Your task to perform on an android device: choose inbox layout in the gmail app Image 0: 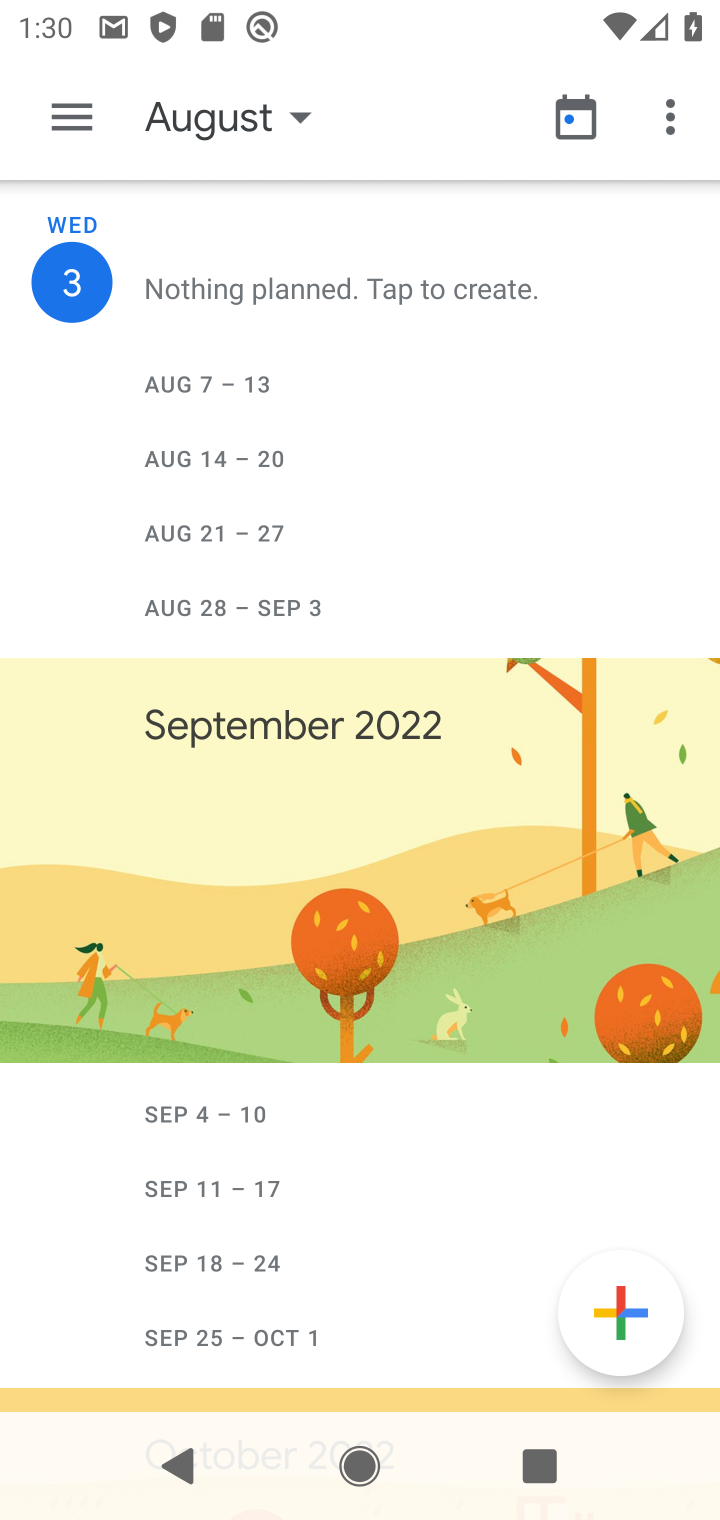
Step 0: press home button
Your task to perform on an android device: choose inbox layout in the gmail app Image 1: 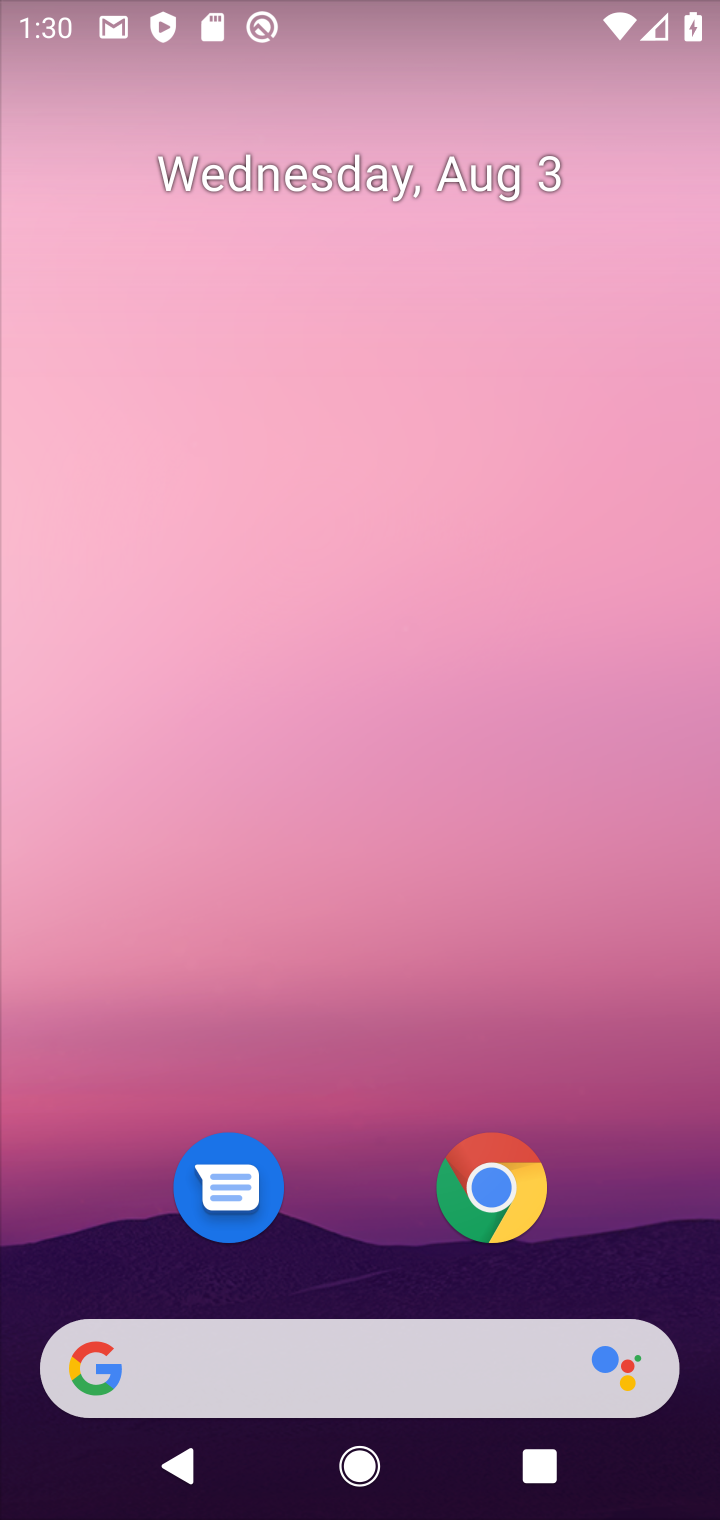
Step 1: drag from (347, 1174) to (431, 9)
Your task to perform on an android device: choose inbox layout in the gmail app Image 2: 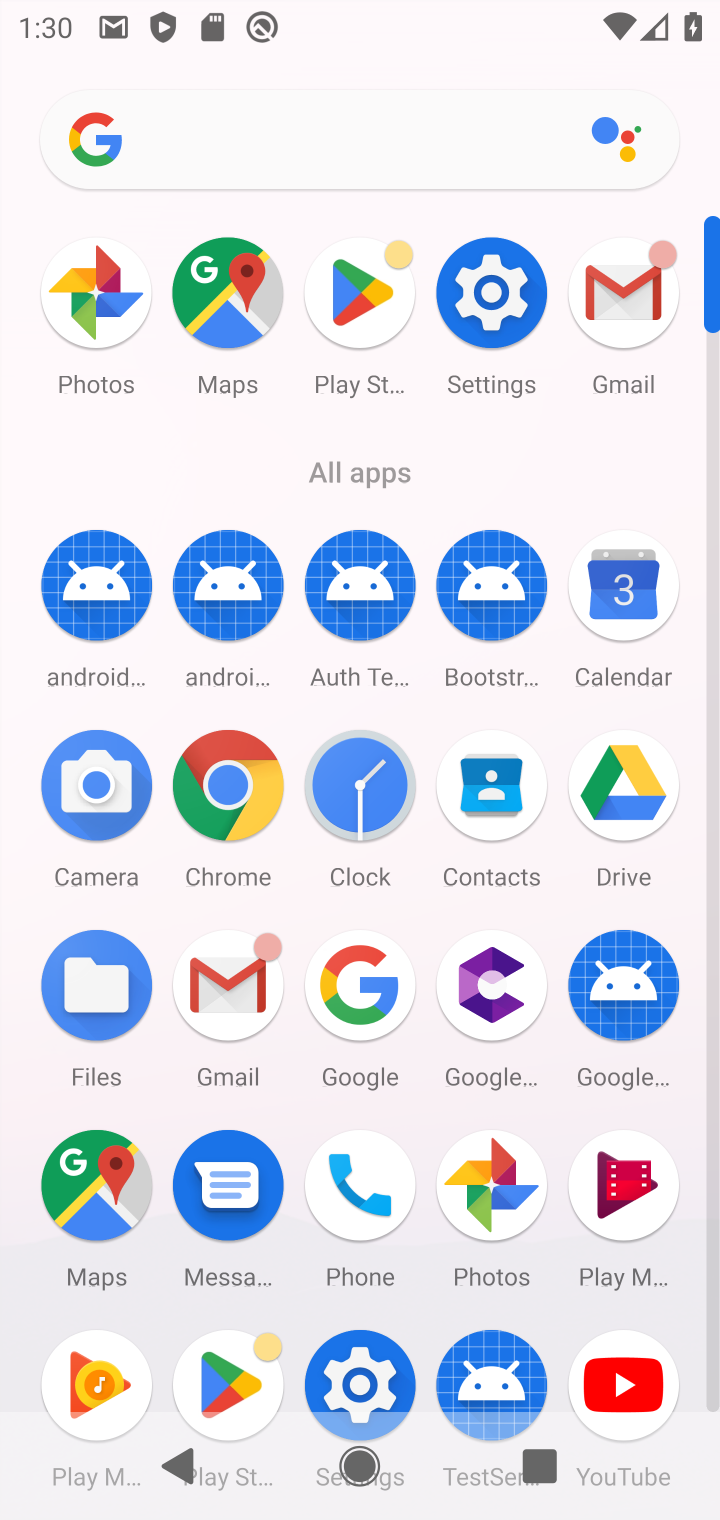
Step 2: click (619, 266)
Your task to perform on an android device: choose inbox layout in the gmail app Image 3: 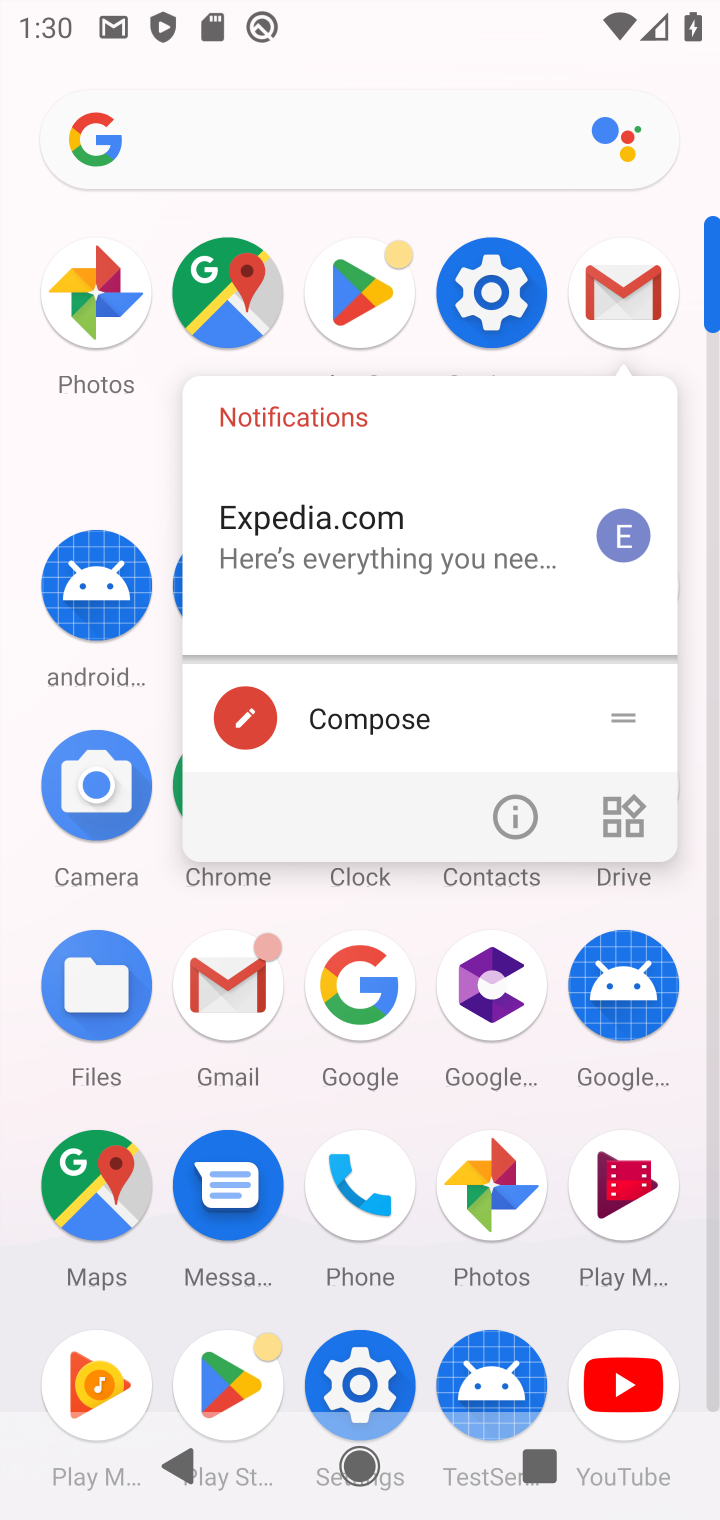
Step 3: click (619, 263)
Your task to perform on an android device: choose inbox layout in the gmail app Image 4: 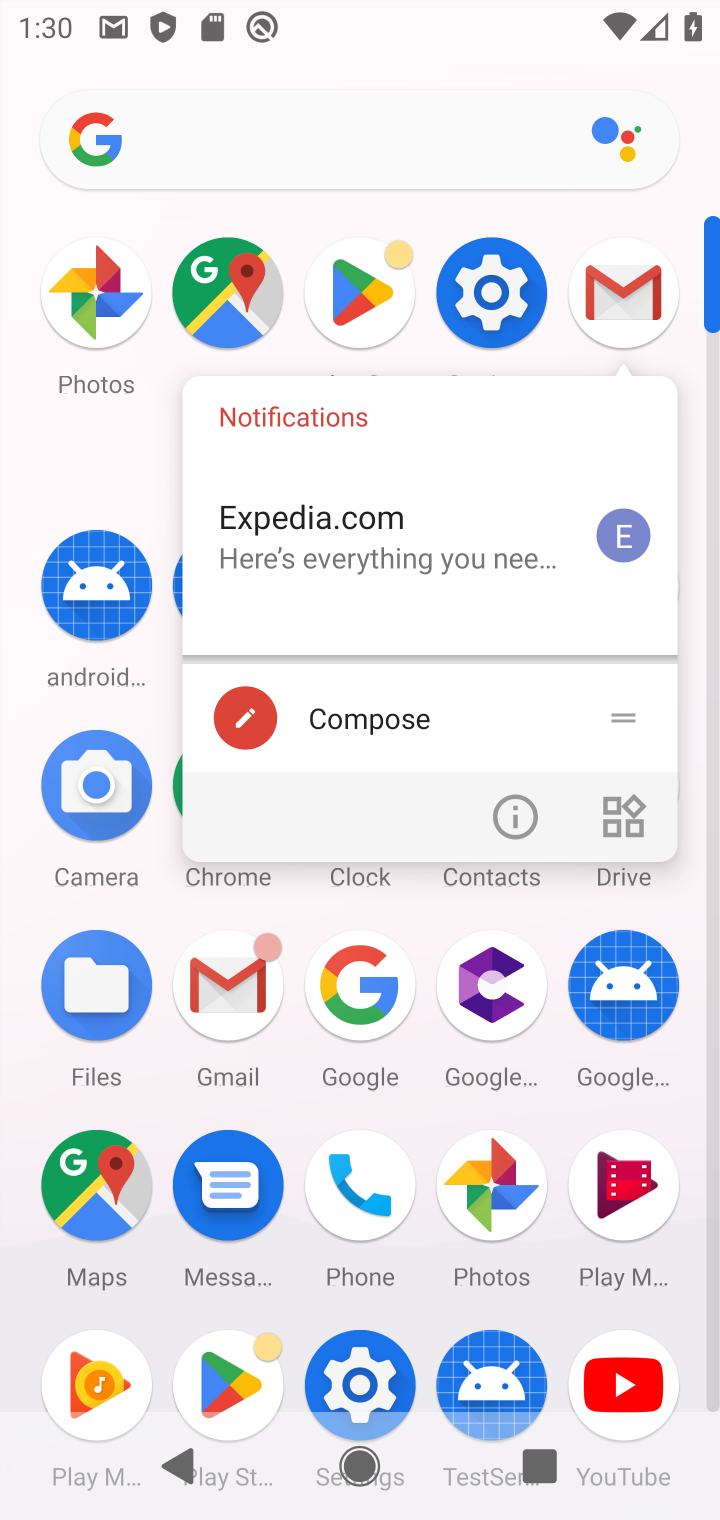
Step 4: click (619, 279)
Your task to perform on an android device: choose inbox layout in the gmail app Image 5: 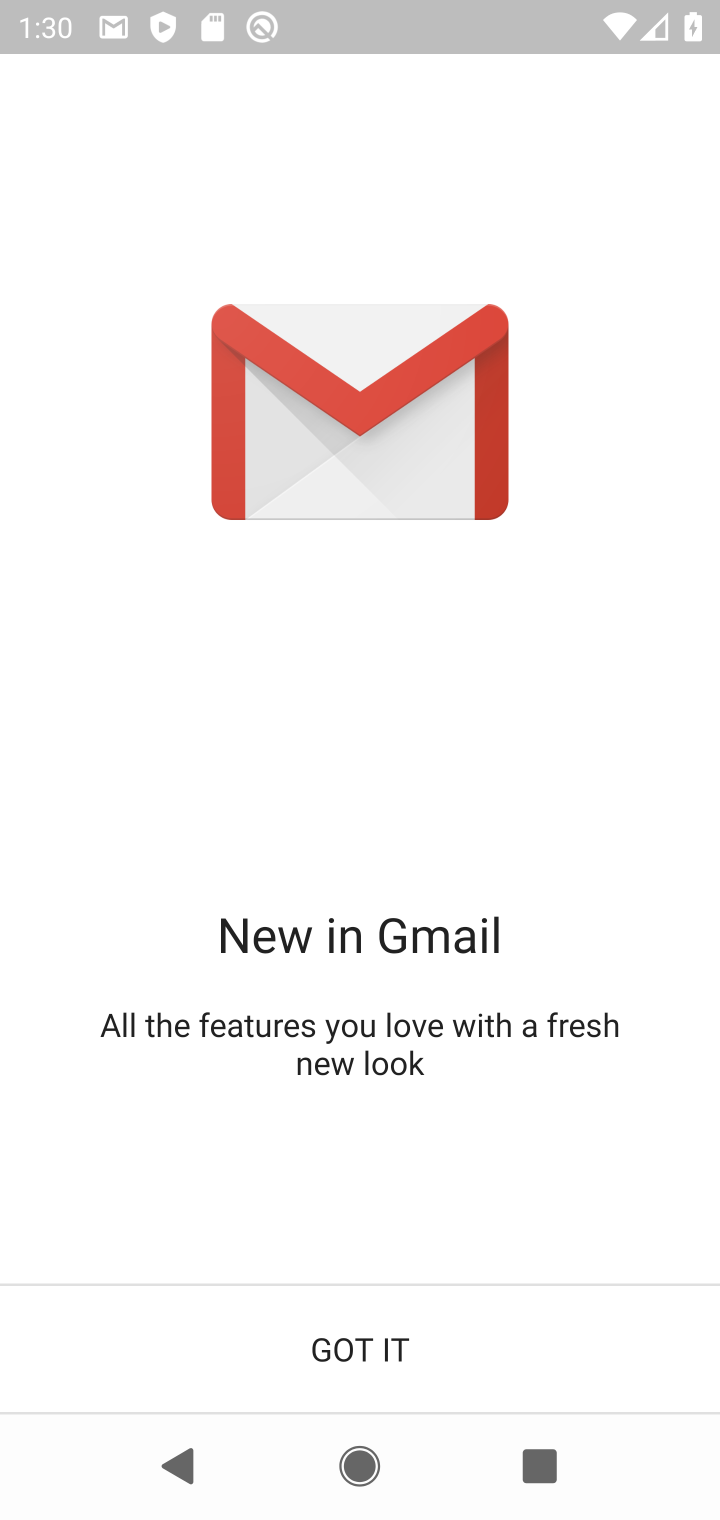
Step 5: click (559, 1353)
Your task to perform on an android device: choose inbox layout in the gmail app Image 6: 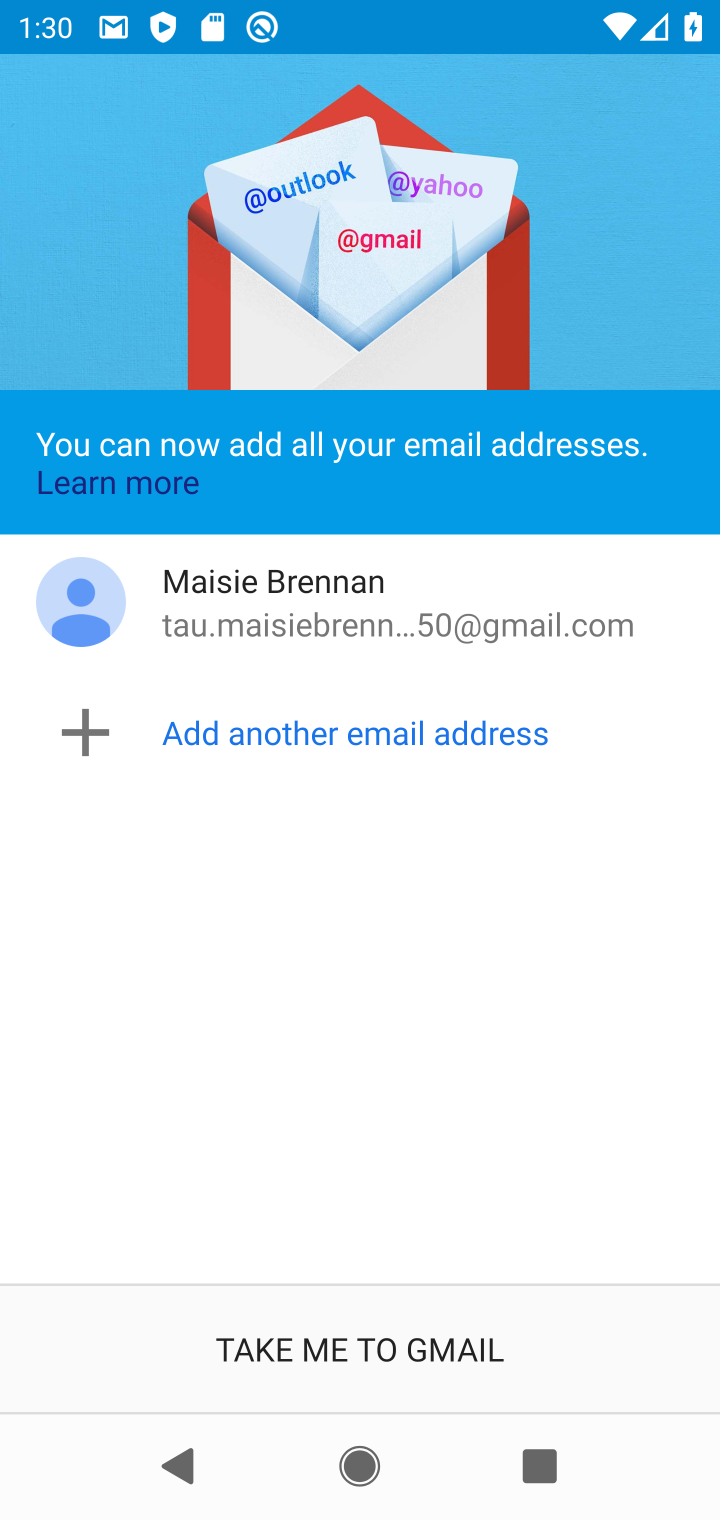
Step 6: click (556, 1346)
Your task to perform on an android device: choose inbox layout in the gmail app Image 7: 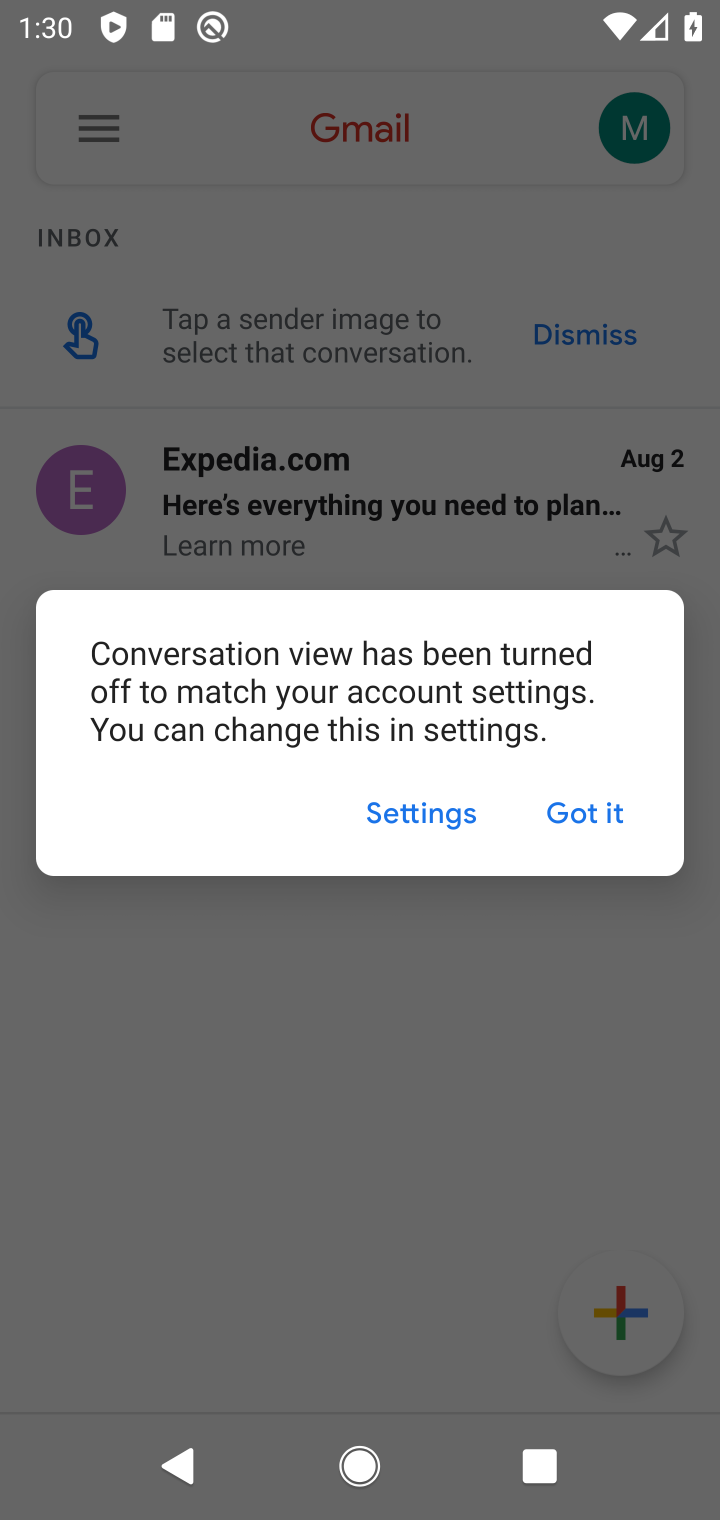
Step 7: click (581, 815)
Your task to perform on an android device: choose inbox layout in the gmail app Image 8: 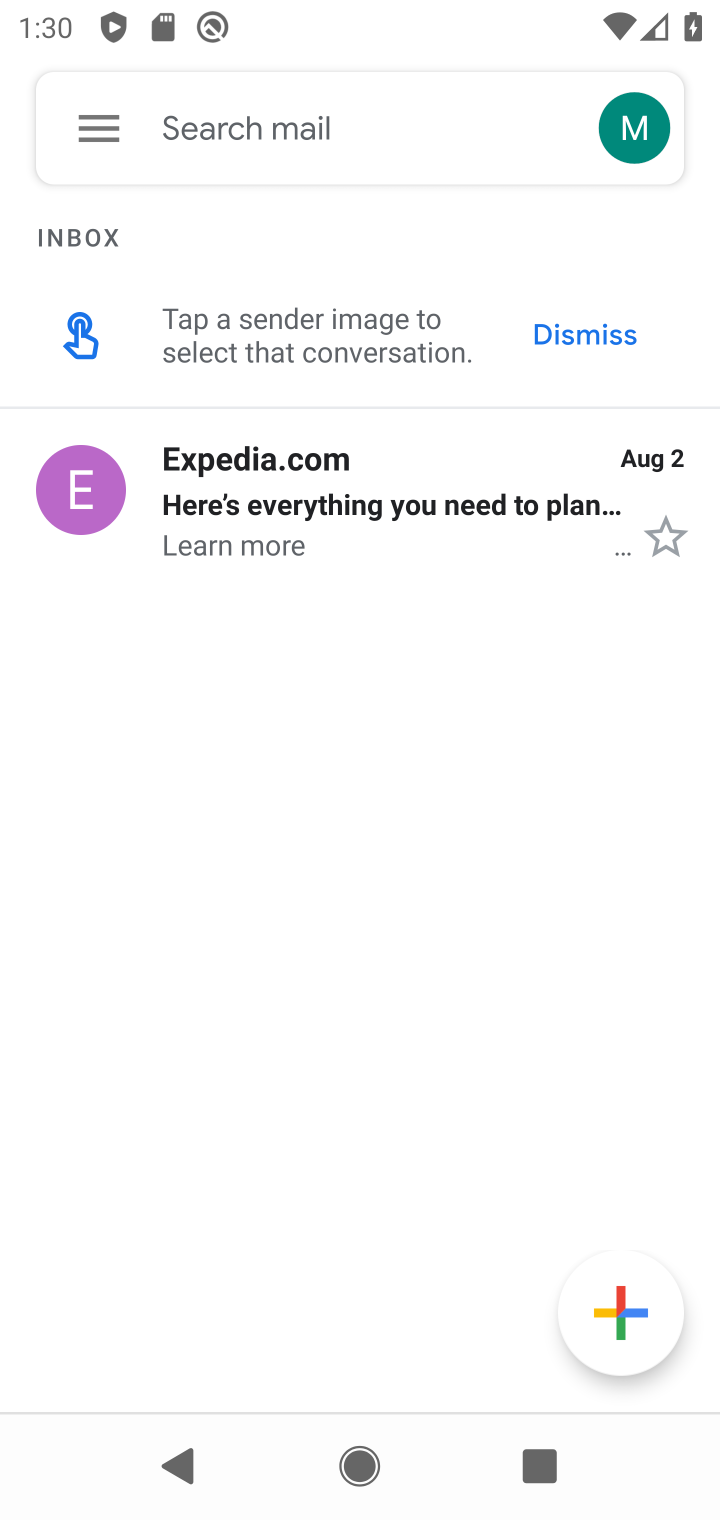
Step 8: click (100, 136)
Your task to perform on an android device: choose inbox layout in the gmail app Image 9: 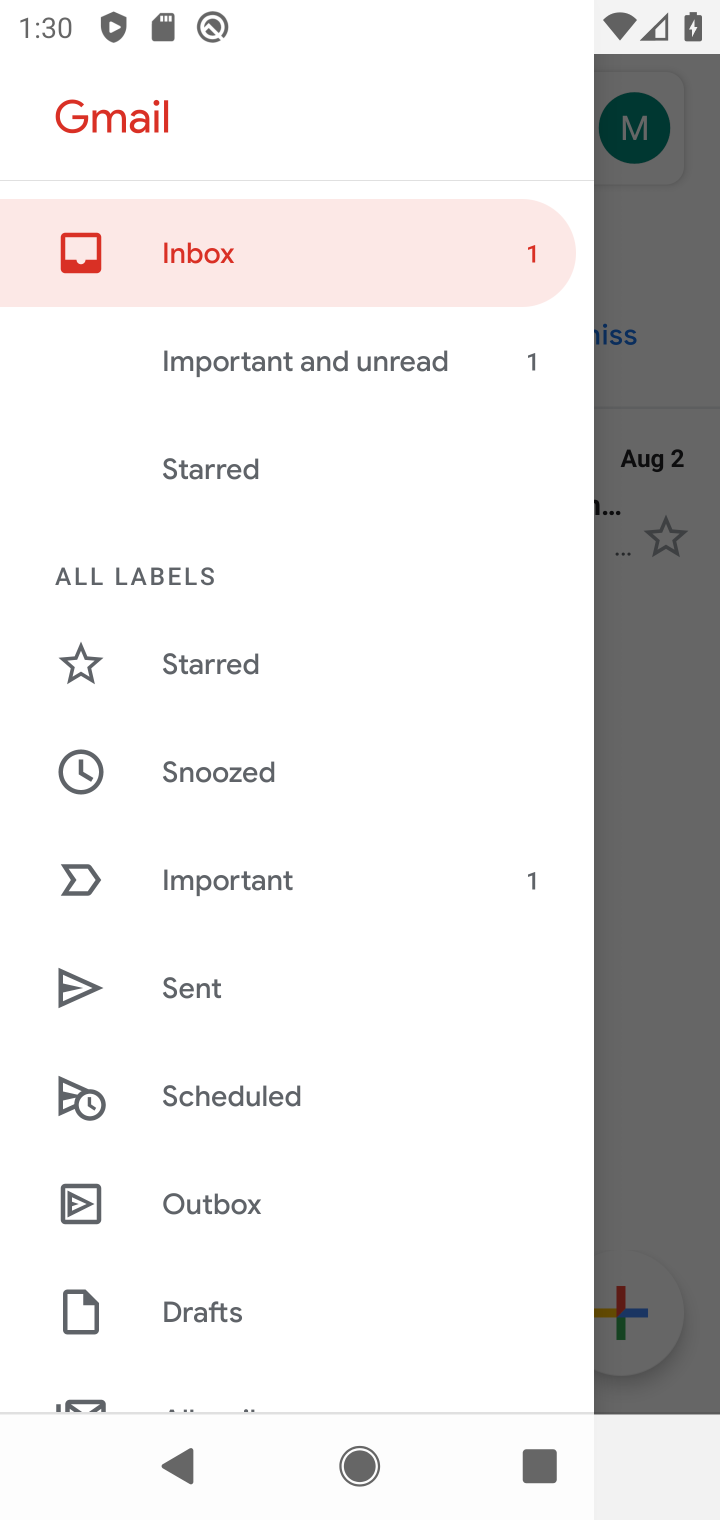
Step 9: drag from (364, 1177) to (356, 7)
Your task to perform on an android device: choose inbox layout in the gmail app Image 10: 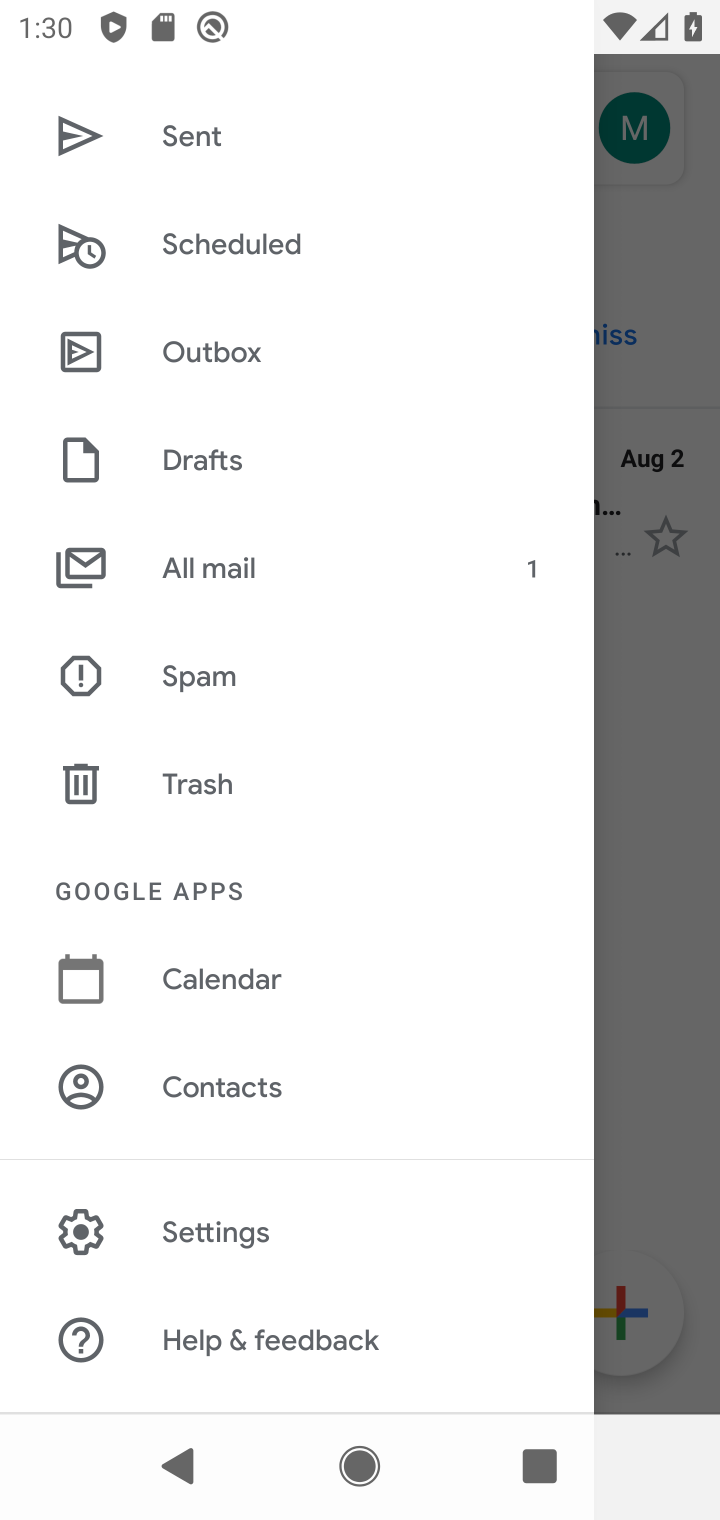
Step 10: click (243, 1243)
Your task to perform on an android device: choose inbox layout in the gmail app Image 11: 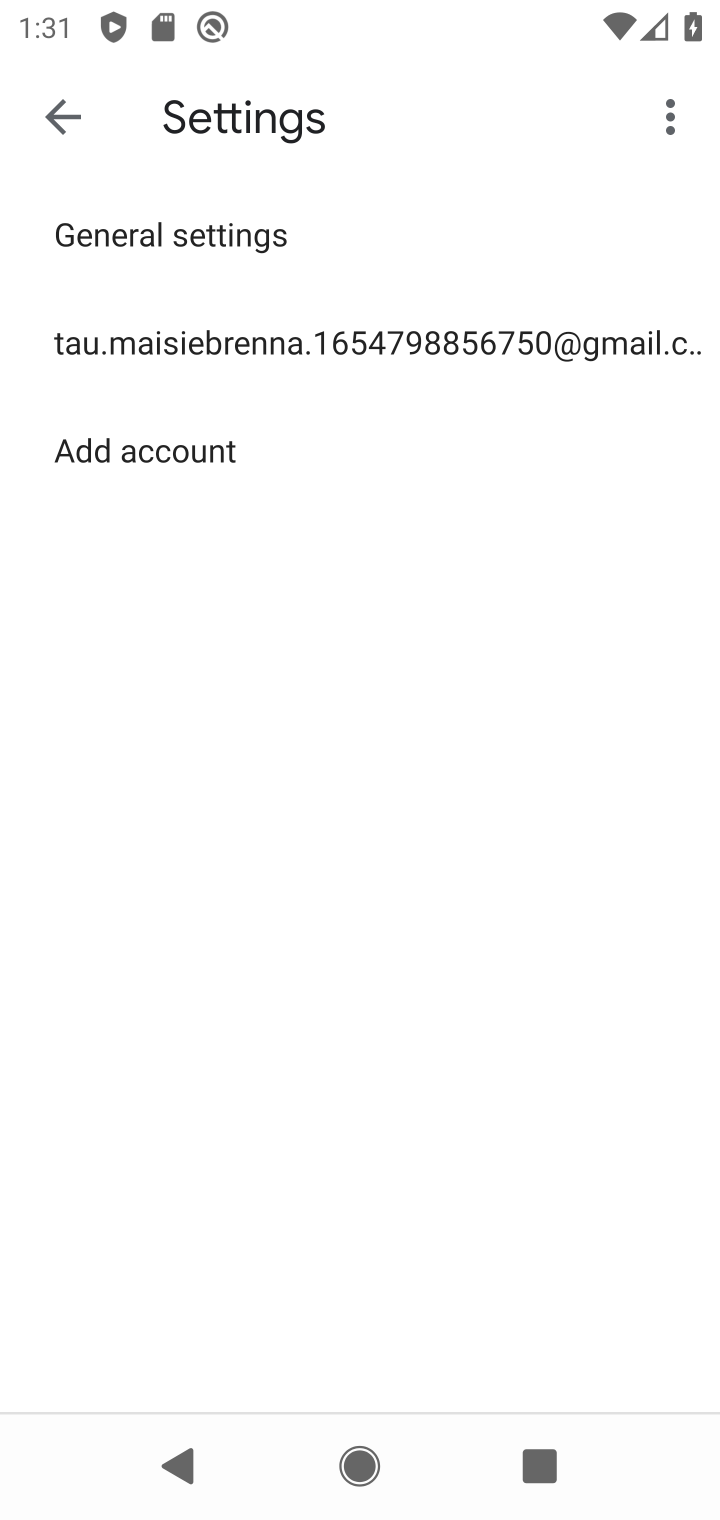
Step 11: click (522, 316)
Your task to perform on an android device: choose inbox layout in the gmail app Image 12: 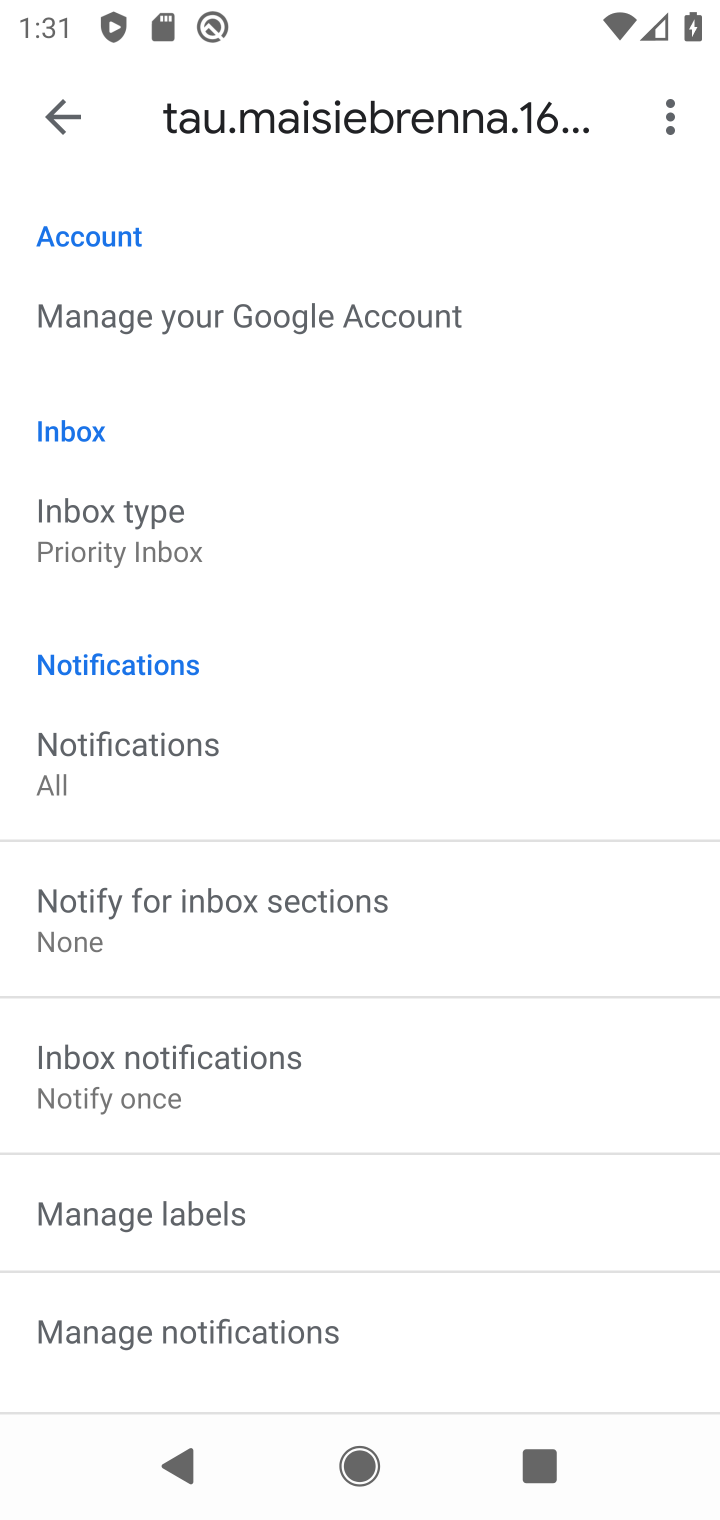
Step 12: click (149, 534)
Your task to perform on an android device: choose inbox layout in the gmail app Image 13: 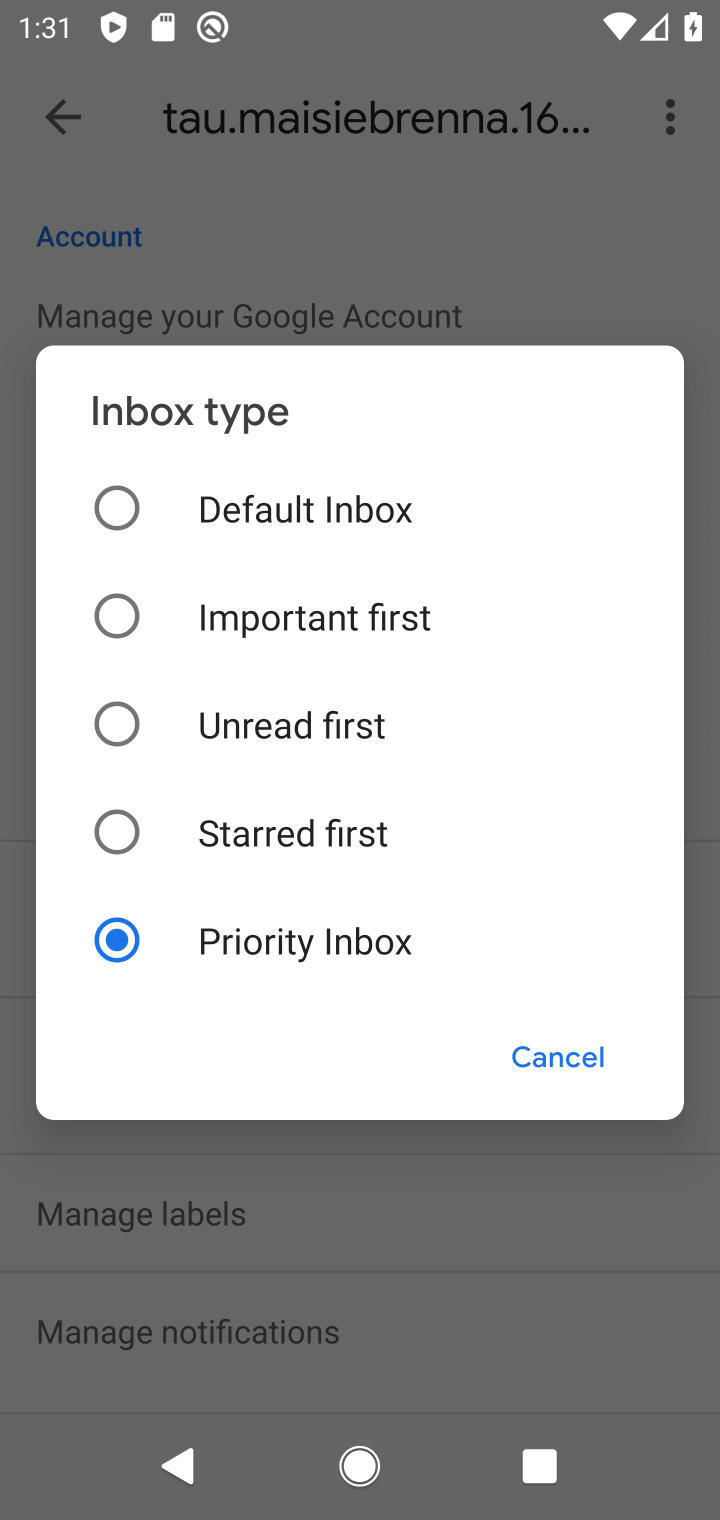
Step 13: click (111, 514)
Your task to perform on an android device: choose inbox layout in the gmail app Image 14: 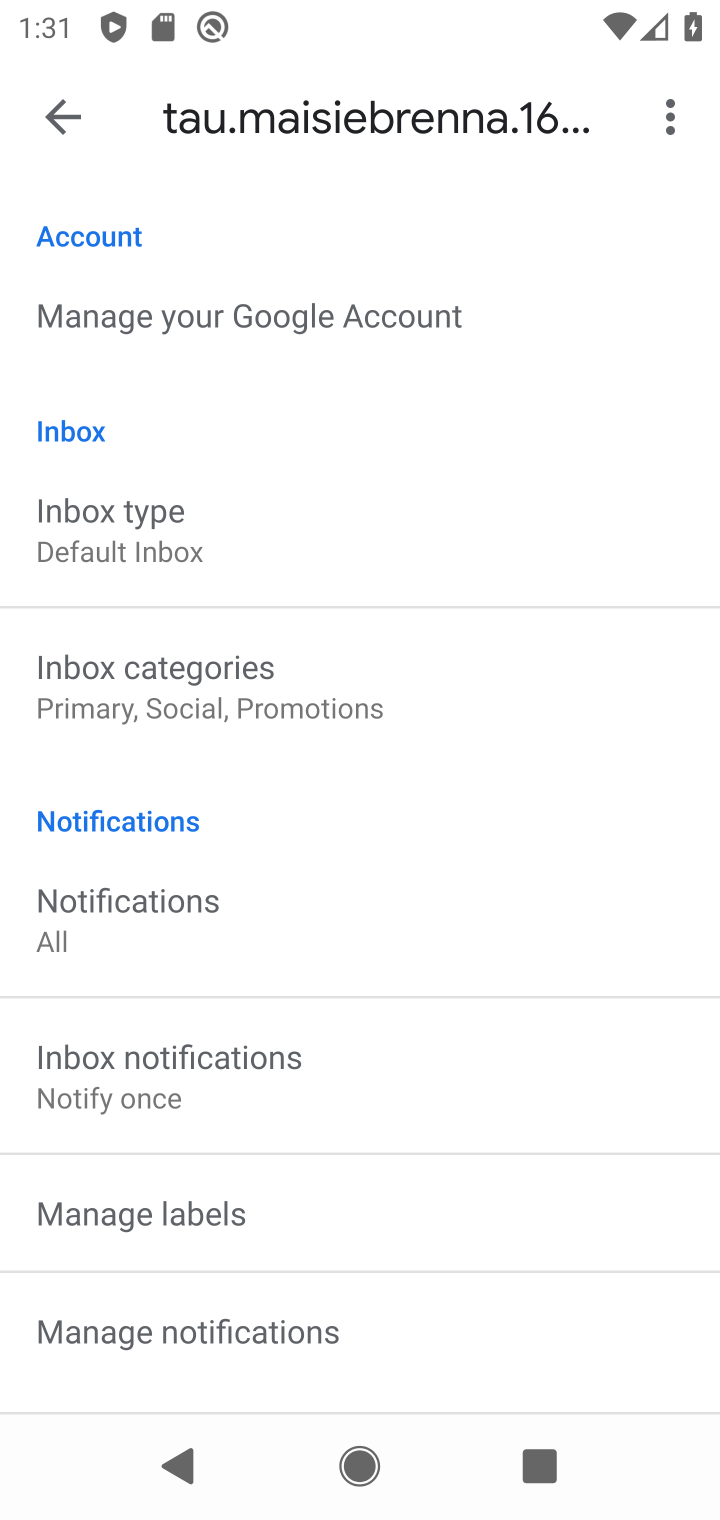
Step 14: task complete